Your task to perform on an android device: turn on location history Image 0: 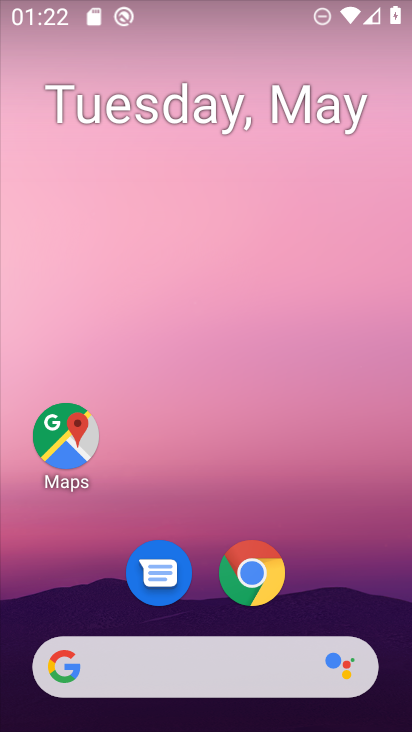
Step 0: drag from (342, 448) to (235, 17)
Your task to perform on an android device: turn on location history Image 1: 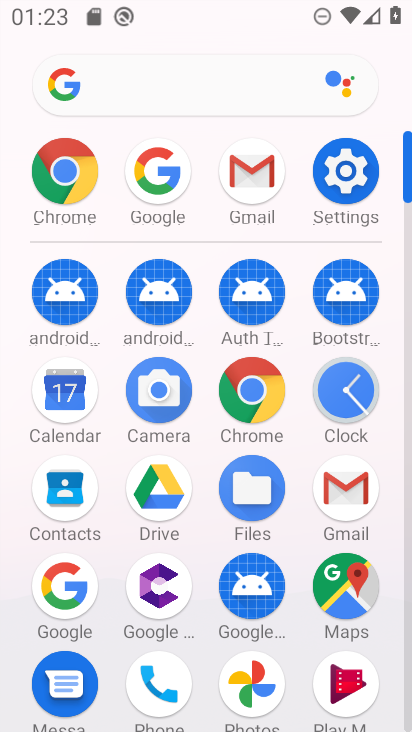
Step 1: click (353, 183)
Your task to perform on an android device: turn on location history Image 2: 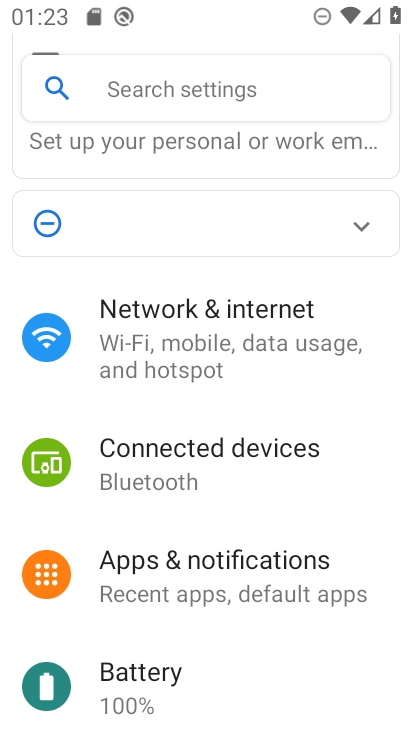
Step 2: drag from (248, 649) to (221, 306)
Your task to perform on an android device: turn on location history Image 3: 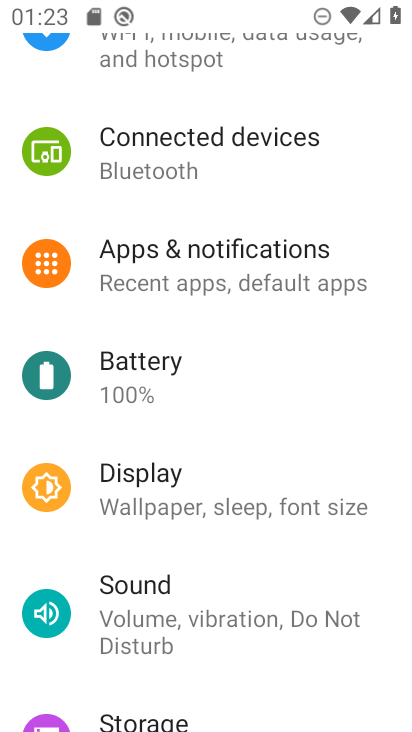
Step 3: drag from (228, 577) to (254, 184)
Your task to perform on an android device: turn on location history Image 4: 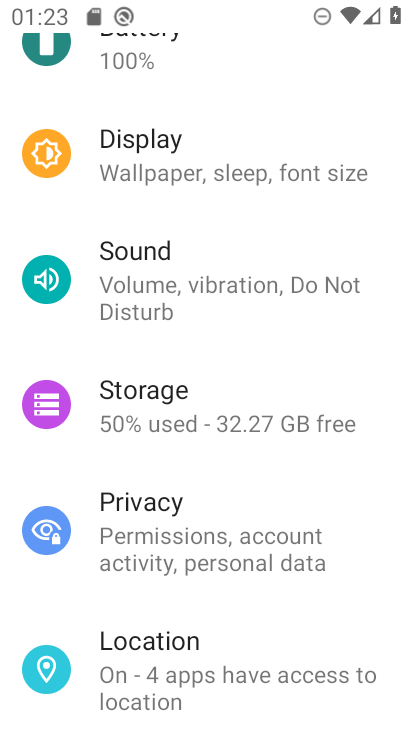
Step 4: click (200, 643)
Your task to perform on an android device: turn on location history Image 5: 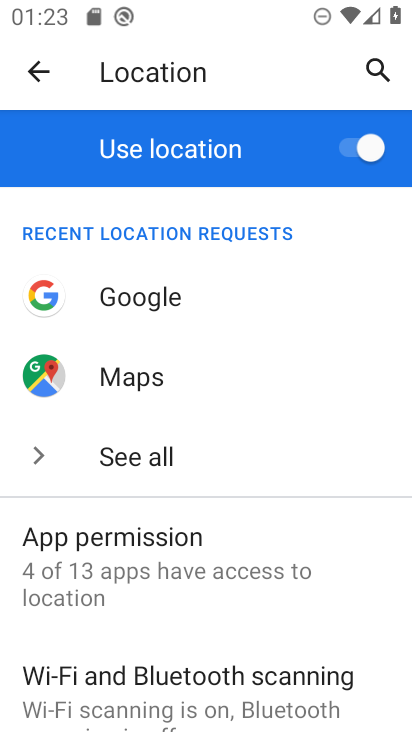
Step 5: drag from (237, 627) to (237, 360)
Your task to perform on an android device: turn on location history Image 6: 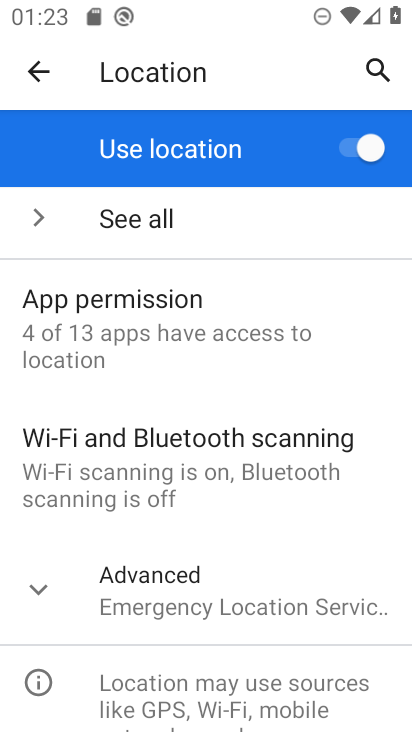
Step 6: drag from (249, 558) to (248, 305)
Your task to perform on an android device: turn on location history Image 7: 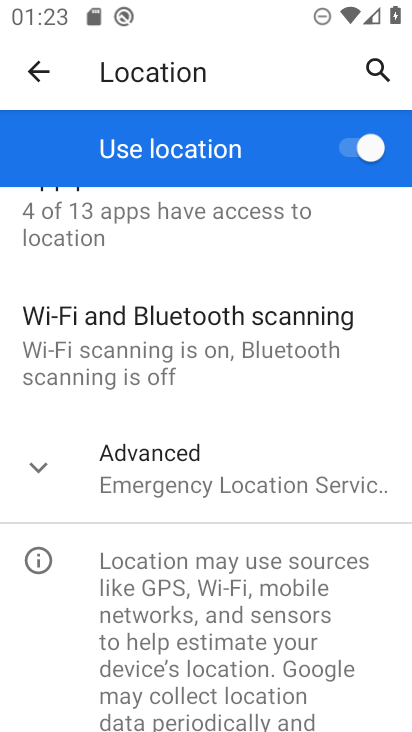
Step 7: click (230, 459)
Your task to perform on an android device: turn on location history Image 8: 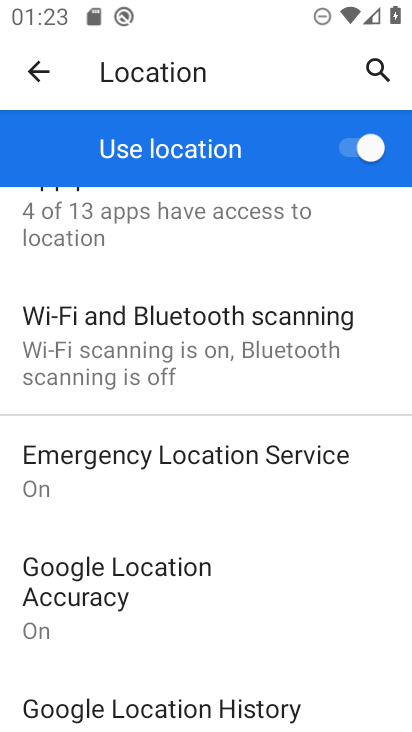
Step 8: click (233, 693)
Your task to perform on an android device: turn on location history Image 9: 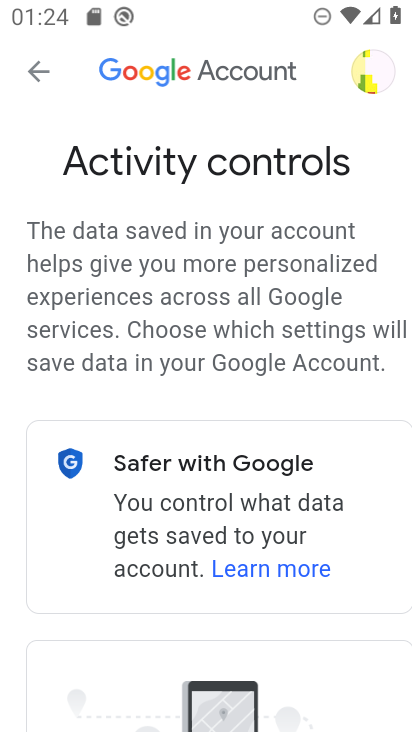
Step 9: drag from (315, 579) to (264, 47)
Your task to perform on an android device: turn on location history Image 10: 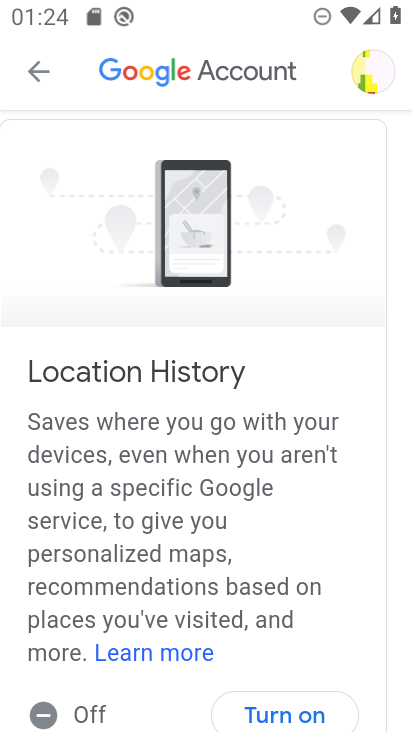
Step 10: drag from (313, 548) to (295, 177)
Your task to perform on an android device: turn on location history Image 11: 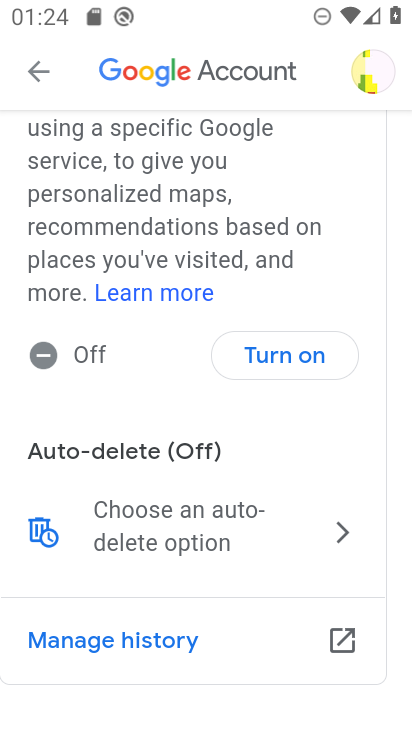
Step 11: click (287, 346)
Your task to perform on an android device: turn on location history Image 12: 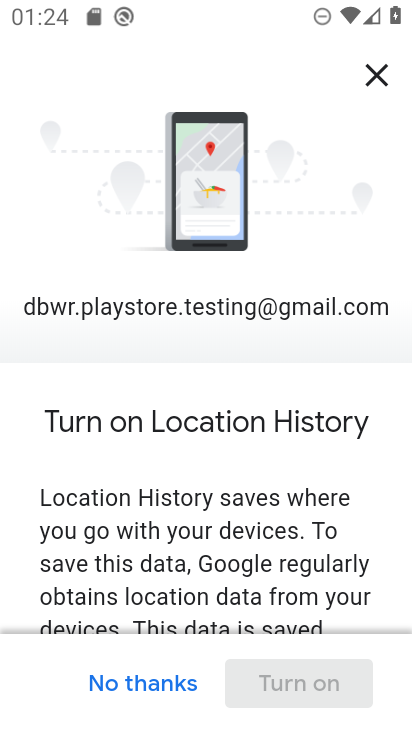
Step 12: drag from (257, 490) to (257, 99)
Your task to perform on an android device: turn on location history Image 13: 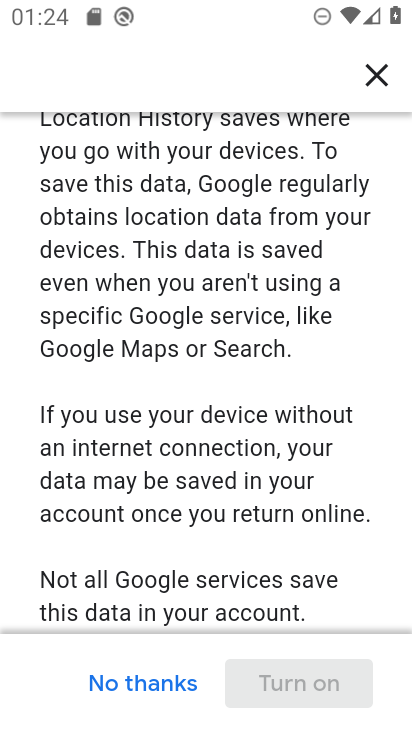
Step 13: drag from (265, 527) to (285, 84)
Your task to perform on an android device: turn on location history Image 14: 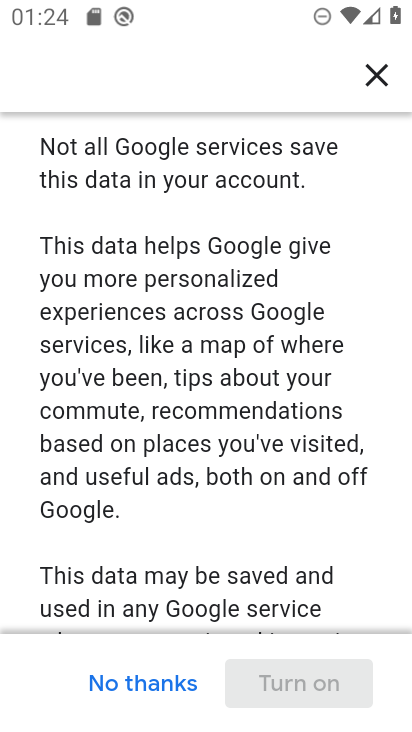
Step 14: drag from (291, 509) to (220, 105)
Your task to perform on an android device: turn on location history Image 15: 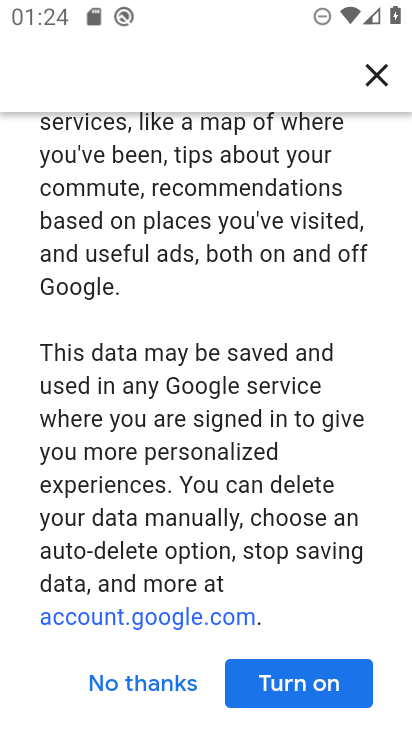
Step 15: click (306, 669)
Your task to perform on an android device: turn on location history Image 16: 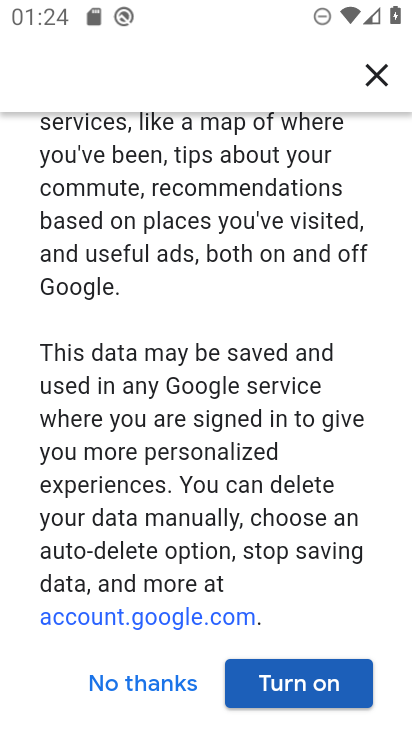
Step 16: click (306, 684)
Your task to perform on an android device: turn on location history Image 17: 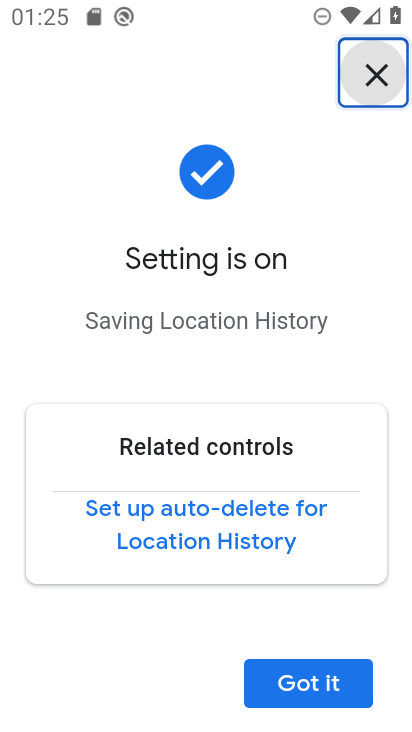
Step 17: click (318, 676)
Your task to perform on an android device: turn on location history Image 18: 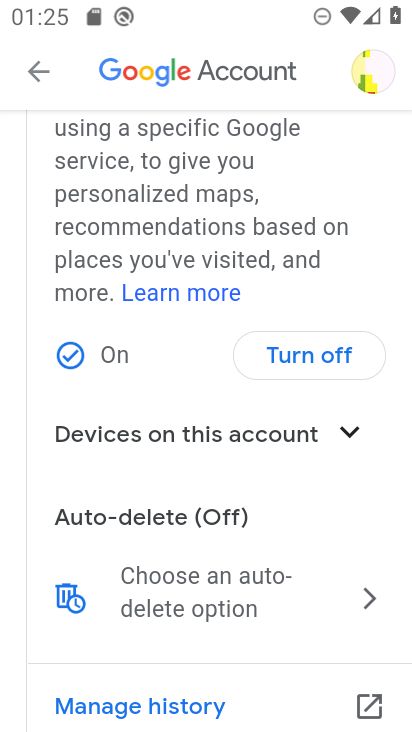
Step 18: task complete